Your task to perform on an android device: Search for "dell xps" on target.com, select the first entry, add it to the cart, then select checkout. Image 0: 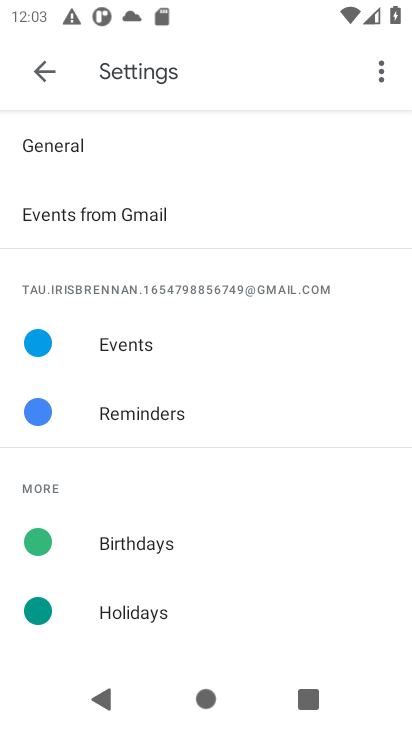
Step 0: press home button
Your task to perform on an android device: Search for "dell xps" on target.com, select the first entry, add it to the cart, then select checkout. Image 1: 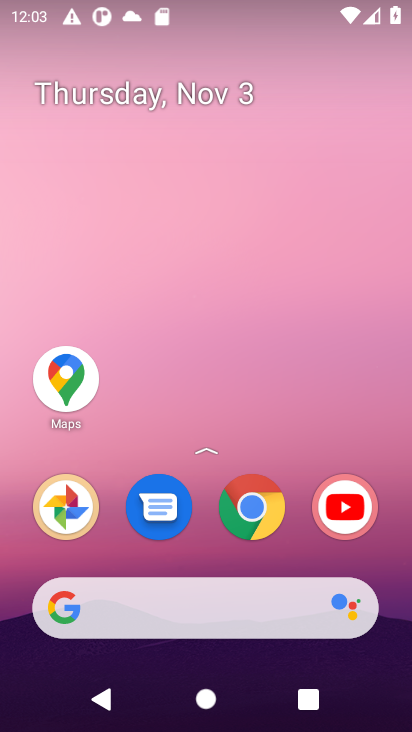
Step 1: click (225, 592)
Your task to perform on an android device: Search for "dell xps" on target.com, select the first entry, add it to the cart, then select checkout. Image 2: 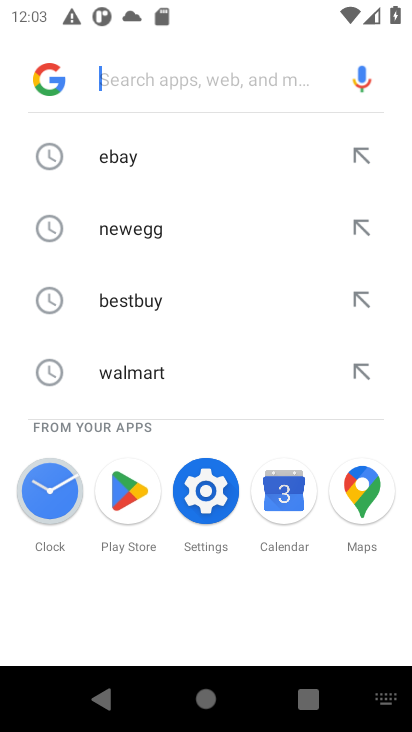
Step 2: type "target"
Your task to perform on an android device: Search for "dell xps" on target.com, select the first entry, add it to the cart, then select checkout. Image 3: 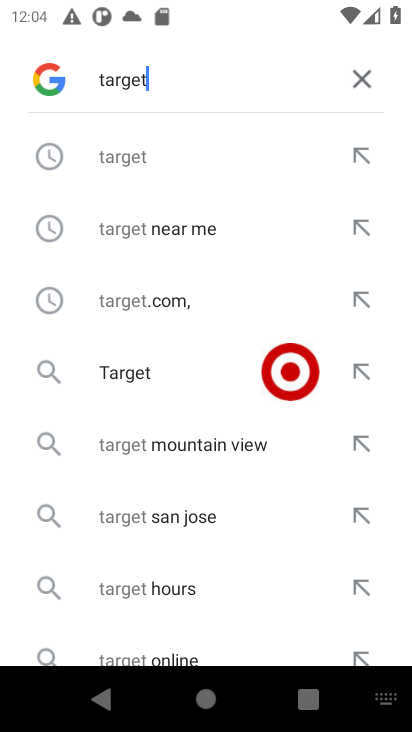
Step 3: click (163, 393)
Your task to perform on an android device: Search for "dell xps" on target.com, select the first entry, add it to the cart, then select checkout. Image 4: 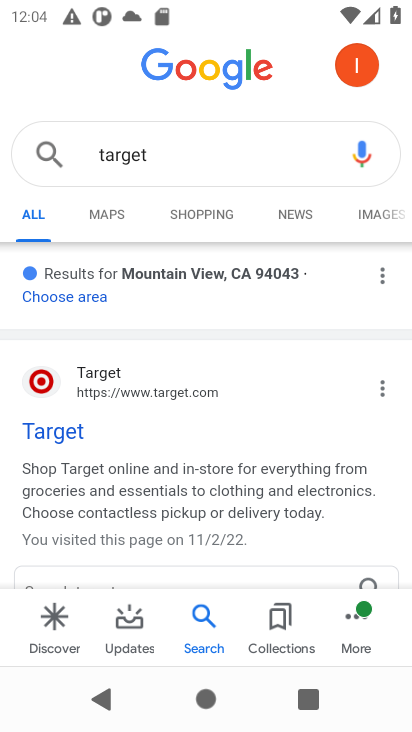
Step 4: click (163, 393)
Your task to perform on an android device: Search for "dell xps" on target.com, select the first entry, add it to the cart, then select checkout. Image 5: 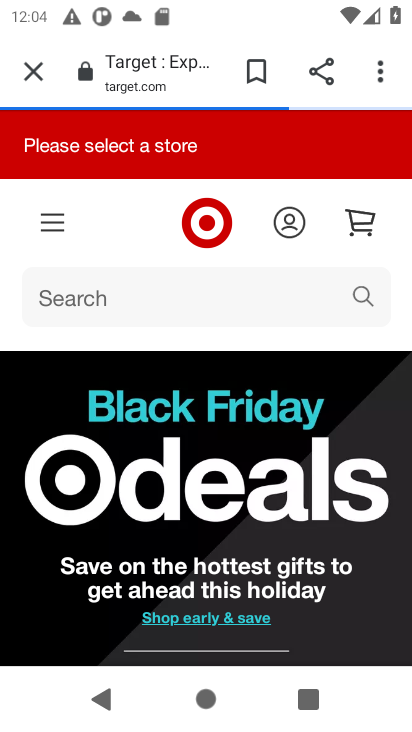
Step 5: click (284, 298)
Your task to perform on an android device: Search for "dell xps" on target.com, select the first entry, add it to the cart, then select checkout. Image 6: 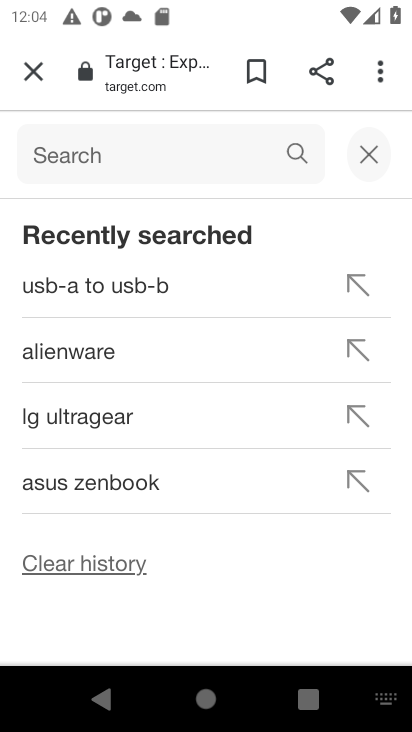
Step 6: type "dellxps"
Your task to perform on an android device: Search for "dell xps" on target.com, select the first entry, add it to the cart, then select checkout. Image 7: 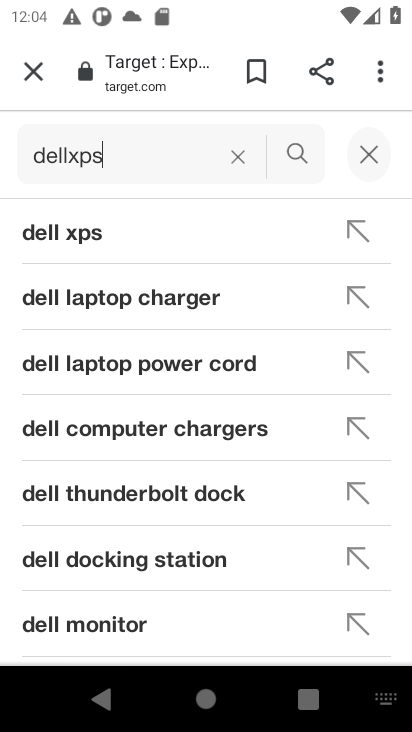
Step 7: click (96, 215)
Your task to perform on an android device: Search for "dell xps" on target.com, select the first entry, add it to the cart, then select checkout. Image 8: 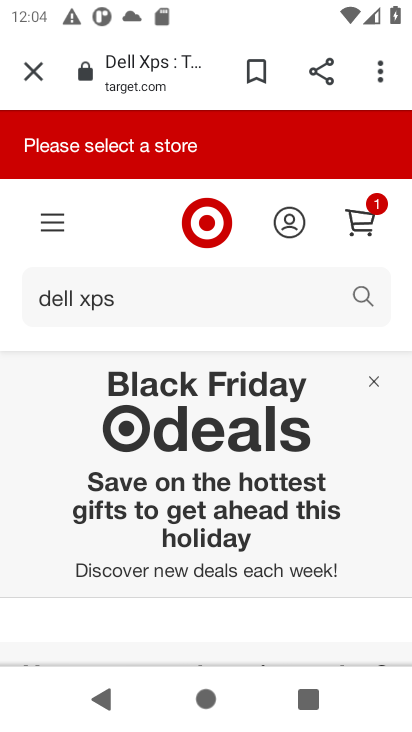
Step 8: task complete